Your task to perform on an android device: turn off data saver in the chrome app Image 0: 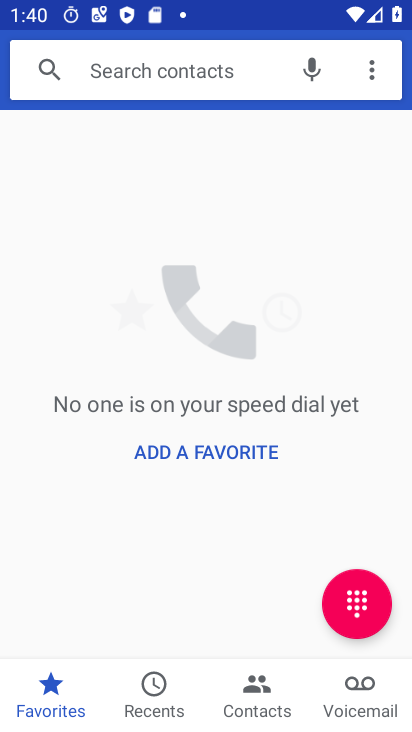
Step 0: press home button
Your task to perform on an android device: turn off data saver in the chrome app Image 1: 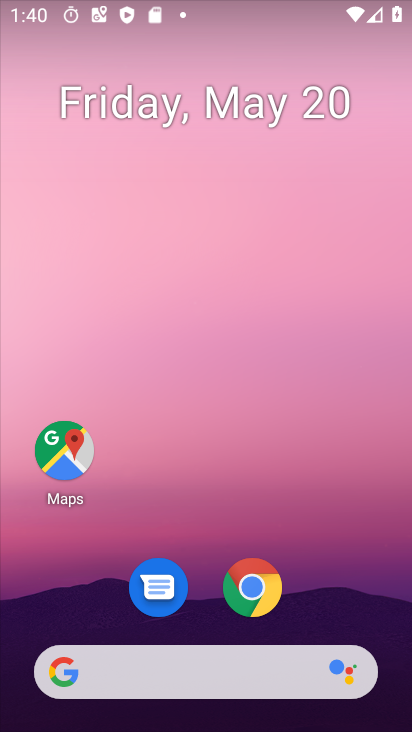
Step 1: click (251, 588)
Your task to perform on an android device: turn off data saver in the chrome app Image 2: 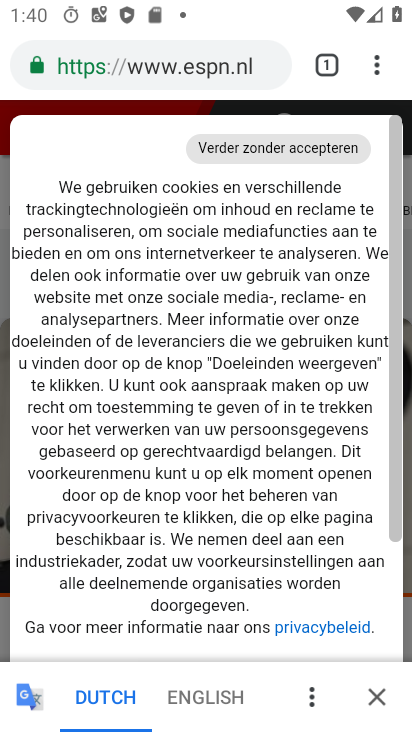
Step 2: click (373, 64)
Your task to perform on an android device: turn off data saver in the chrome app Image 3: 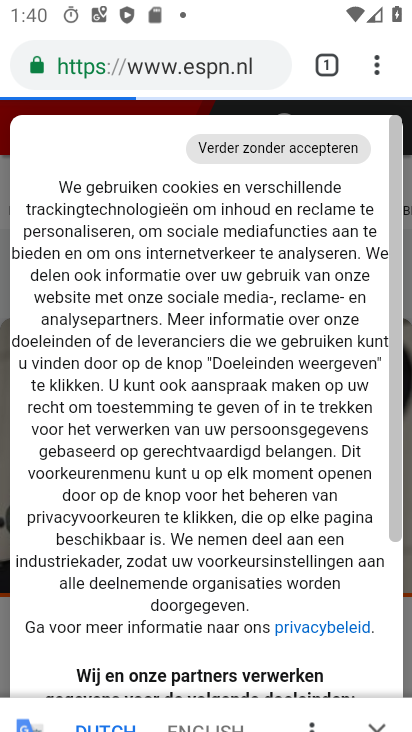
Step 3: drag from (373, 64) to (234, 638)
Your task to perform on an android device: turn off data saver in the chrome app Image 4: 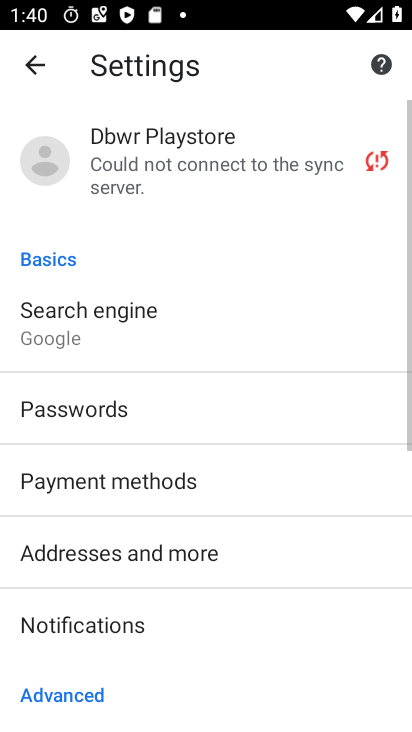
Step 4: drag from (228, 507) to (351, 106)
Your task to perform on an android device: turn off data saver in the chrome app Image 5: 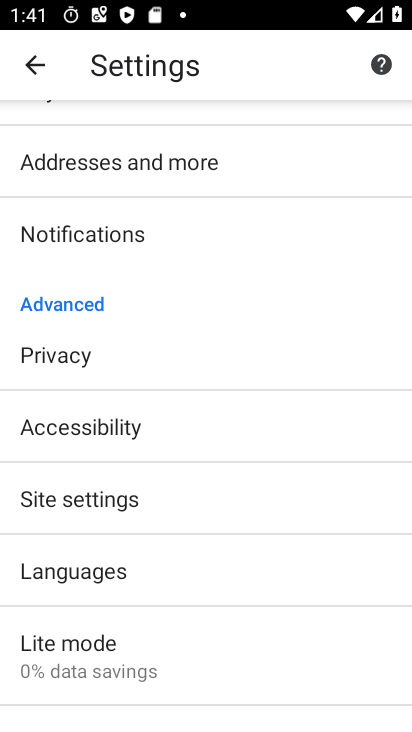
Step 5: click (60, 668)
Your task to perform on an android device: turn off data saver in the chrome app Image 6: 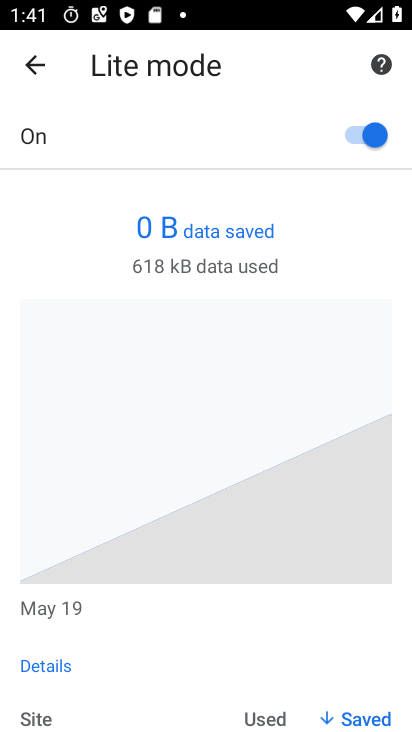
Step 6: click (373, 142)
Your task to perform on an android device: turn off data saver in the chrome app Image 7: 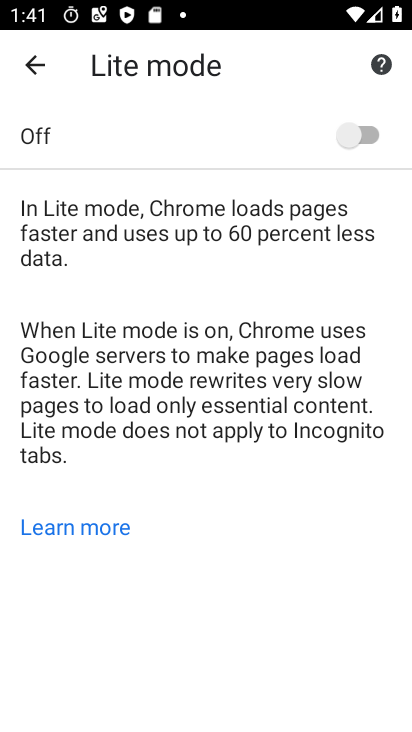
Step 7: task complete